Your task to perform on an android device: toggle translation in the chrome app Image 0: 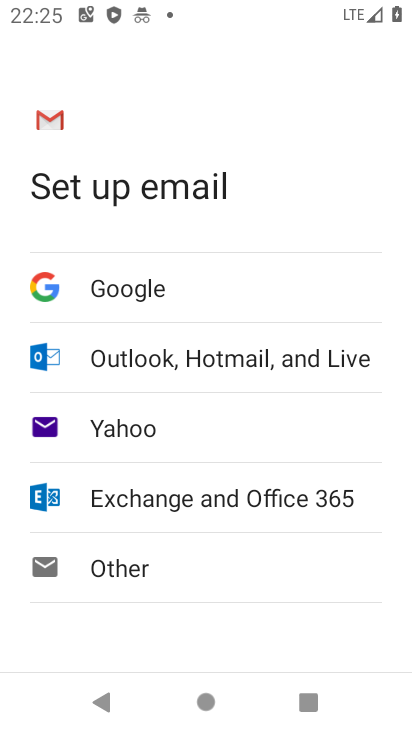
Step 0: press home button
Your task to perform on an android device: toggle translation in the chrome app Image 1: 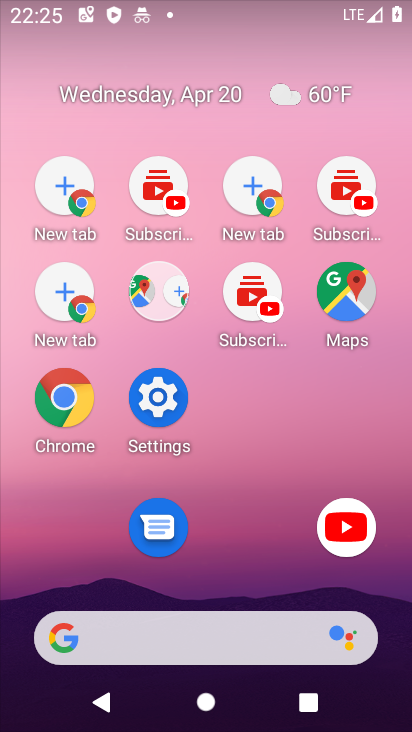
Step 1: drag from (256, 634) to (154, 144)
Your task to perform on an android device: toggle translation in the chrome app Image 2: 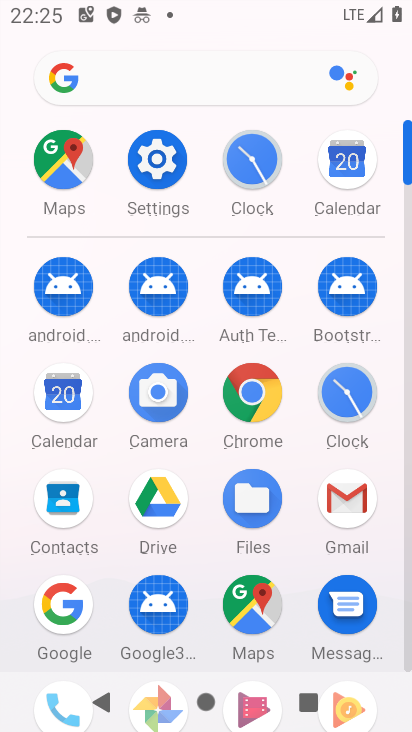
Step 2: click (246, 389)
Your task to perform on an android device: toggle translation in the chrome app Image 3: 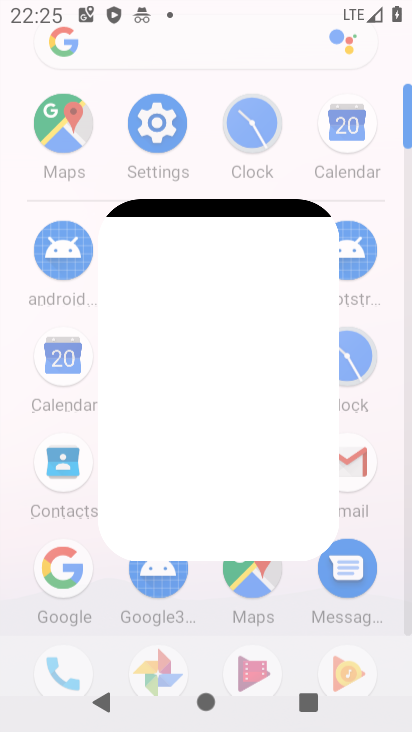
Step 3: click (247, 390)
Your task to perform on an android device: toggle translation in the chrome app Image 4: 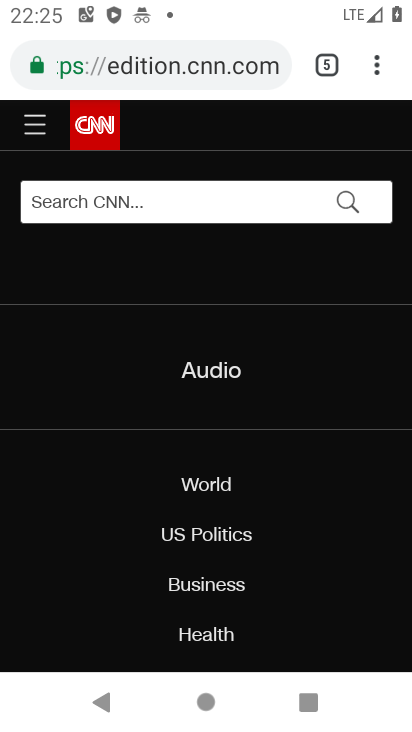
Step 4: drag from (376, 64) to (157, 589)
Your task to perform on an android device: toggle translation in the chrome app Image 5: 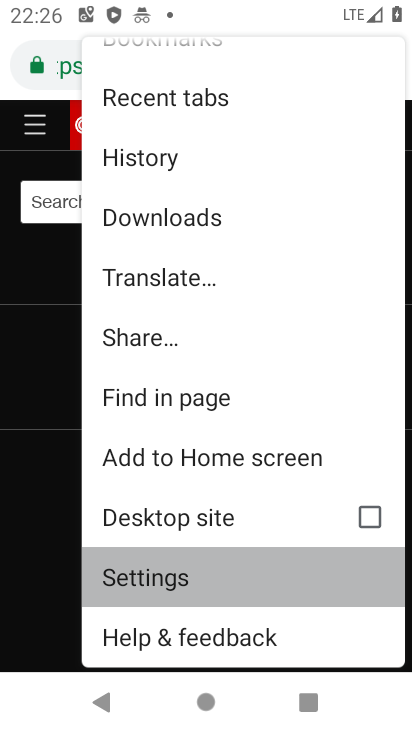
Step 5: click (164, 587)
Your task to perform on an android device: toggle translation in the chrome app Image 6: 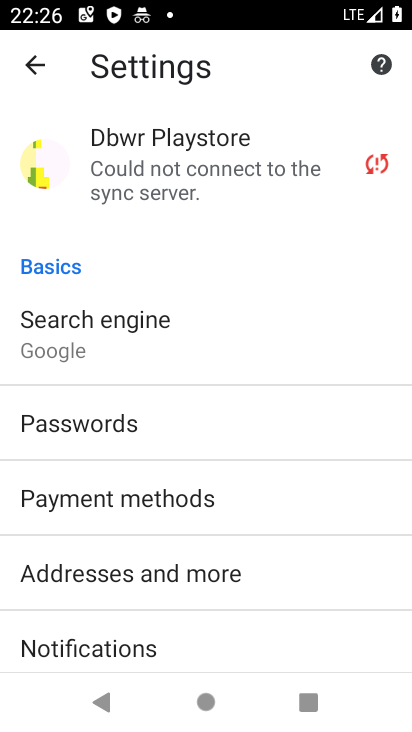
Step 6: drag from (175, 560) to (201, 318)
Your task to perform on an android device: toggle translation in the chrome app Image 7: 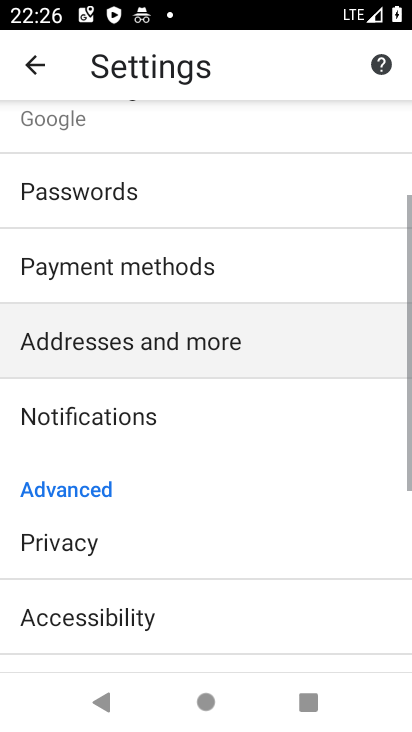
Step 7: drag from (180, 342) to (168, 253)
Your task to perform on an android device: toggle translation in the chrome app Image 8: 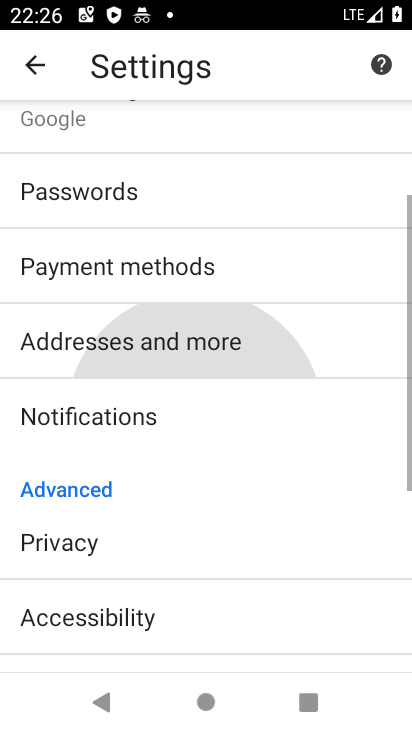
Step 8: drag from (197, 469) to (194, 164)
Your task to perform on an android device: toggle translation in the chrome app Image 9: 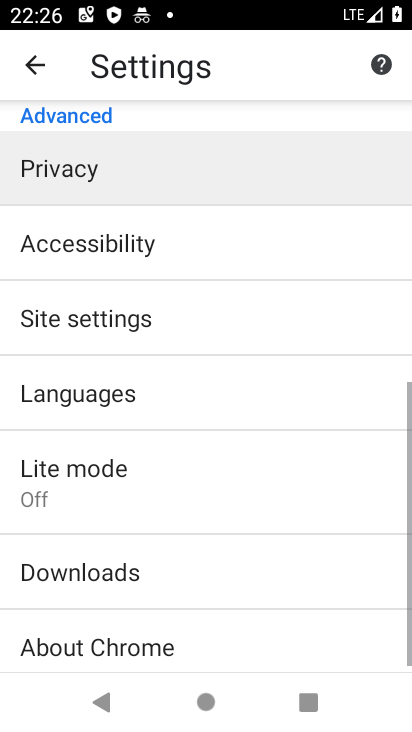
Step 9: click (205, 108)
Your task to perform on an android device: toggle translation in the chrome app Image 10: 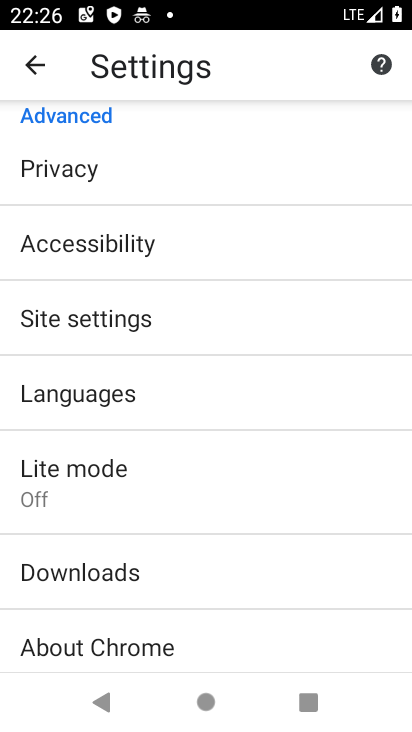
Step 10: click (69, 389)
Your task to perform on an android device: toggle translation in the chrome app Image 11: 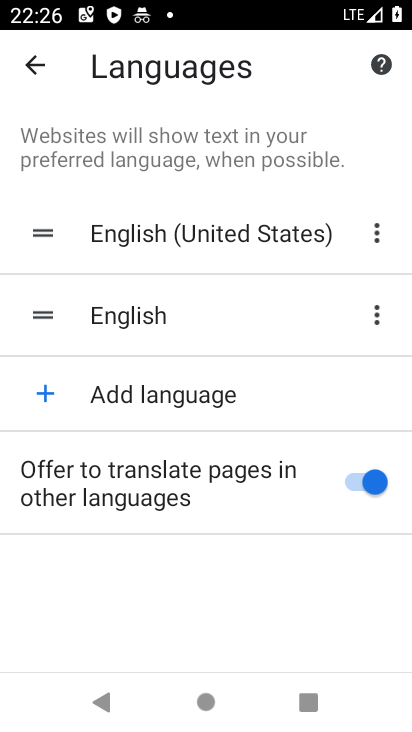
Step 11: click (370, 484)
Your task to perform on an android device: toggle translation in the chrome app Image 12: 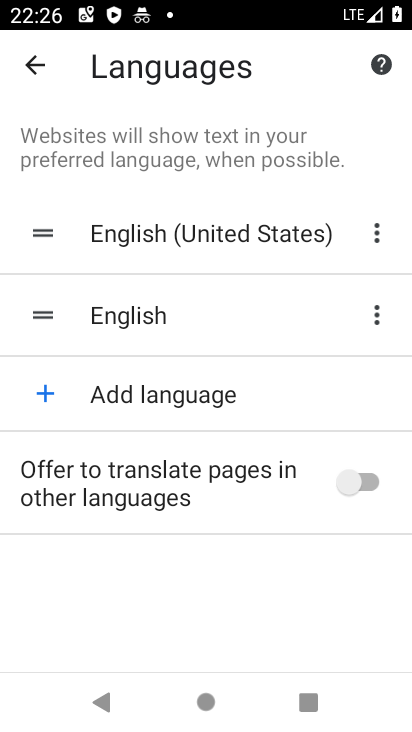
Step 12: task complete